Your task to perform on an android device: check android version Image 0: 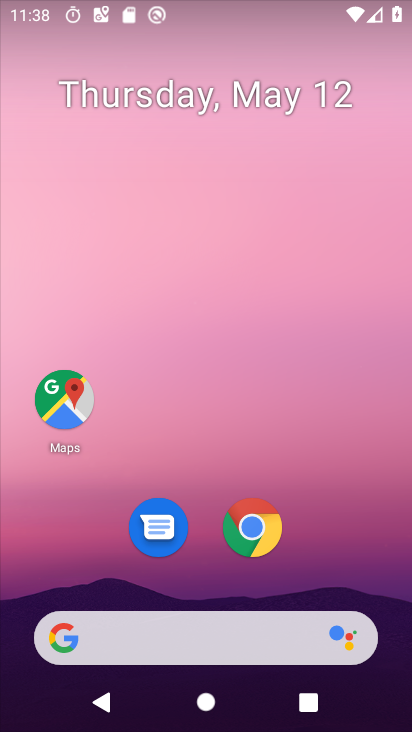
Step 0: drag from (297, 237) to (290, 127)
Your task to perform on an android device: check android version Image 1: 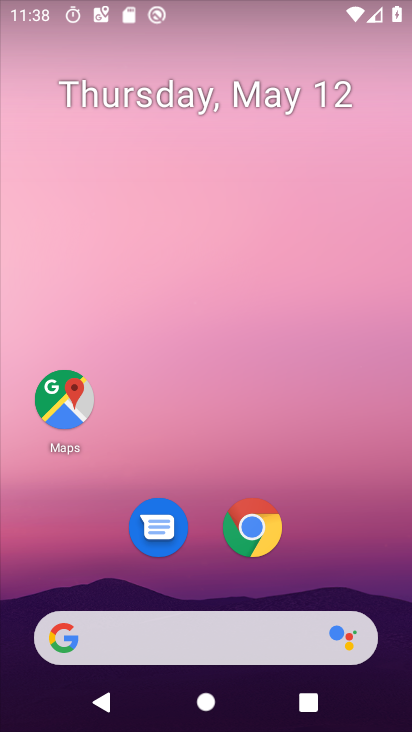
Step 1: drag from (293, 571) to (241, 111)
Your task to perform on an android device: check android version Image 2: 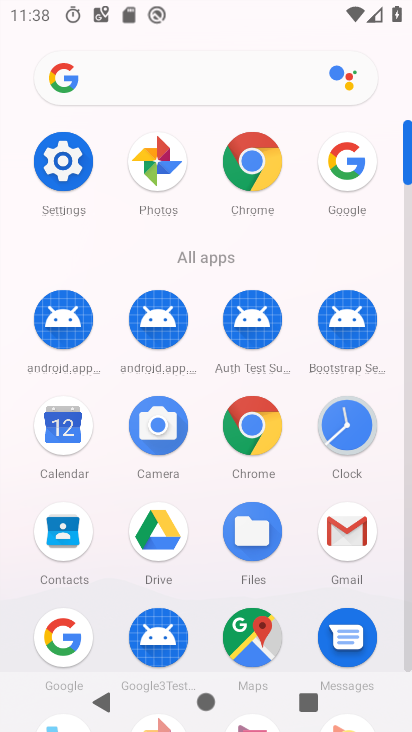
Step 2: click (58, 166)
Your task to perform on an android device: check android version Image 3: 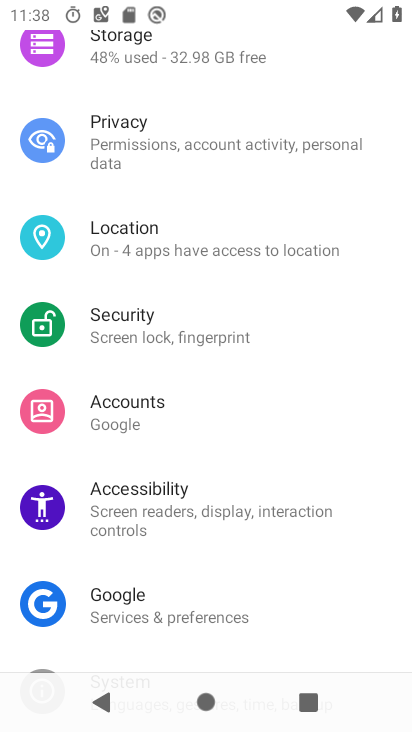
Step 3: drag from (213, 611) to (256, 154)
Your task to perform on an android device: check android version Image 4: 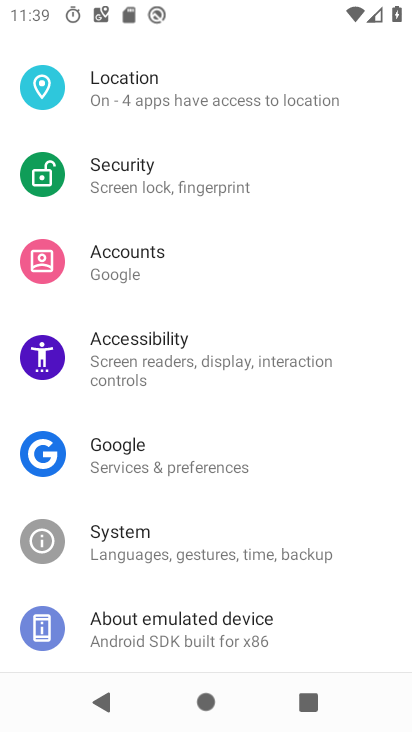
Step 4: click (223, 630)
Your task to perform on an android device: check android version Image 5: 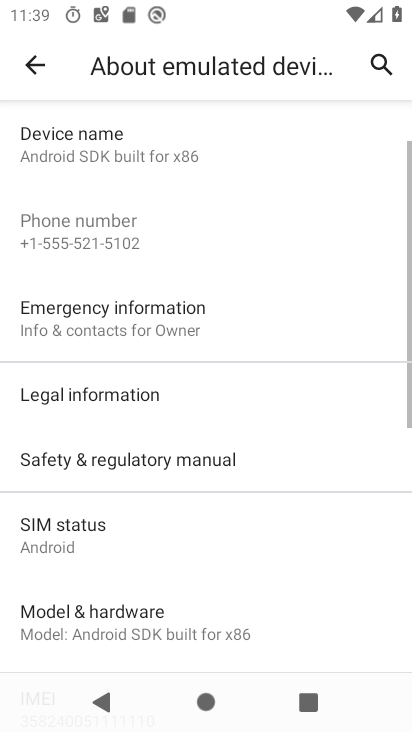
Step 5: click (53, 555)
Your task to perform on an android device: check android version Image 6: 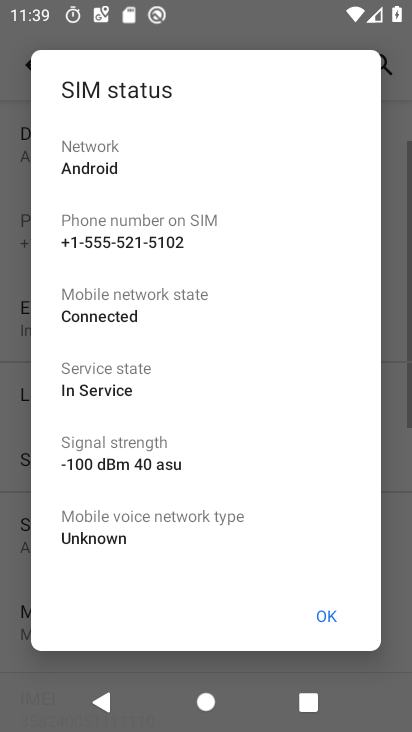
Step 6: task complete